Your task to perform on an android device: Is it going to rain tomorrow? Image 0: 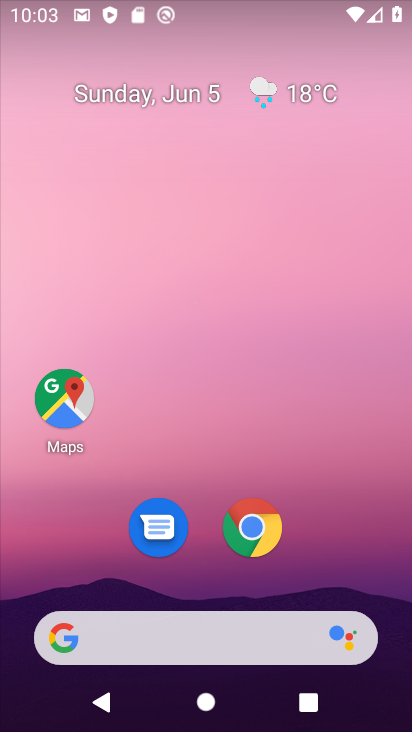
Step 0: click (281, 637)
Your task to perform on an android device: Is it going to rain tomorrow? Image 1: 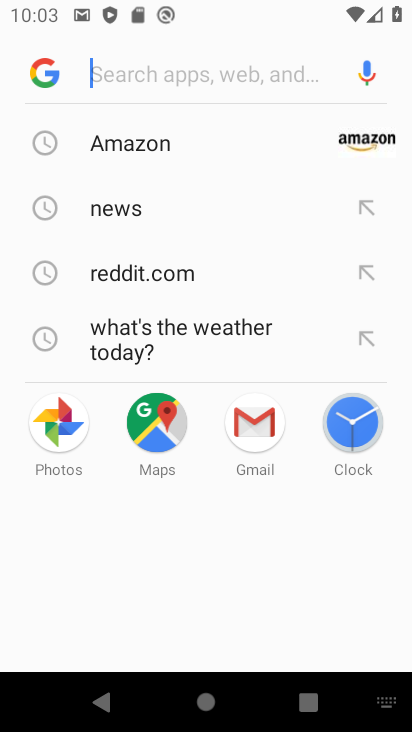
Step 1: type "weather"
Your task to perform on an android device: Is it going to rain tomorrow? Image 2: 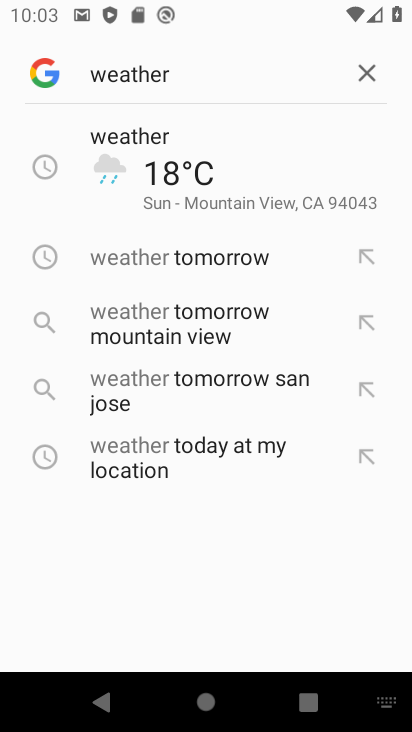
Step 2: click (165, 132)
Your task to perform on an android device: Is it going to rain tomorrow? Image 3: 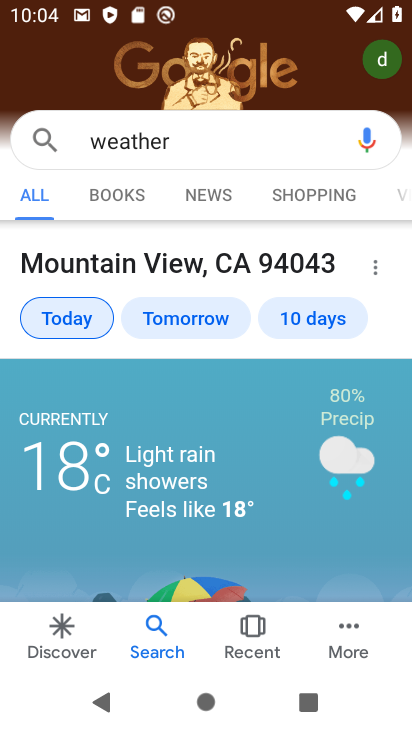
Step 3: click (167, 317)
Your task to perform on an android device: Is it going to rain tomorrow? Image 4: 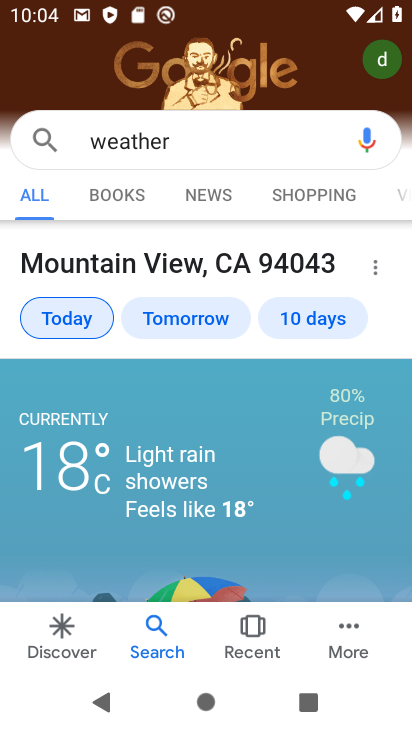
Step 4: click (163, 320)
Your task to perform on an android device: Is it going to rain tomorrow? Image 5: 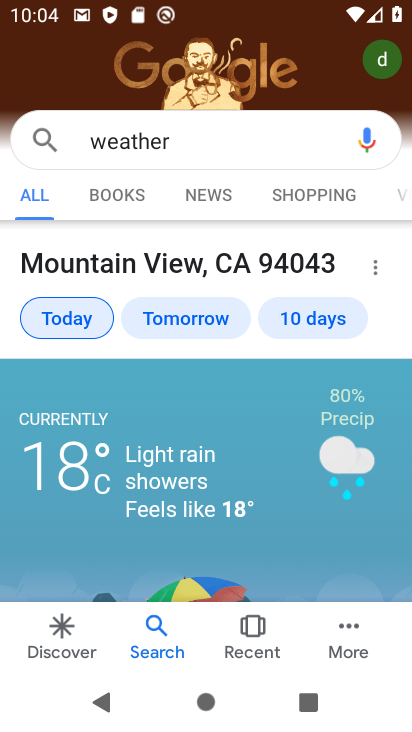
Step 5: click (169, 316)
Your task to perform on an android device: Is it going to rain tomorrow? Image 6: 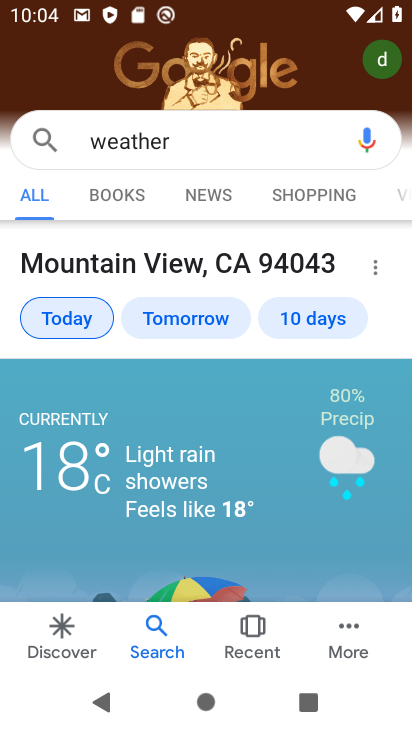
Step 6: click (170, 314)
Your task to perform on an android device: Is it going to rain tomorrow? Image 7: 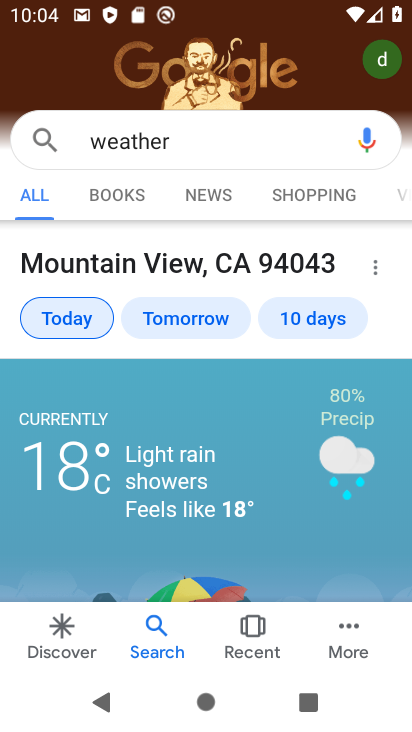
Step 7: task complete